Your task to perform on an android device: Open ESPN.com Image 0: 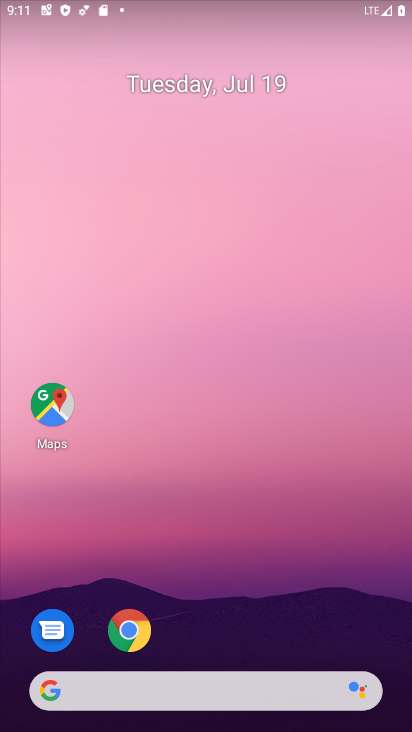
Step 0: drag from (216, 607) to (207, 83)
Your task to perform on an android device: Open ESPN.com Image 1: 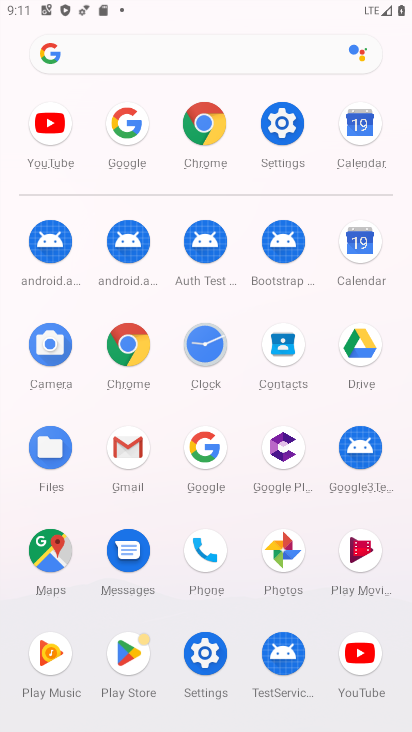
Step 1: click (205, 442)
Your task to perform on an android device: Open ESPN.com Image 2: 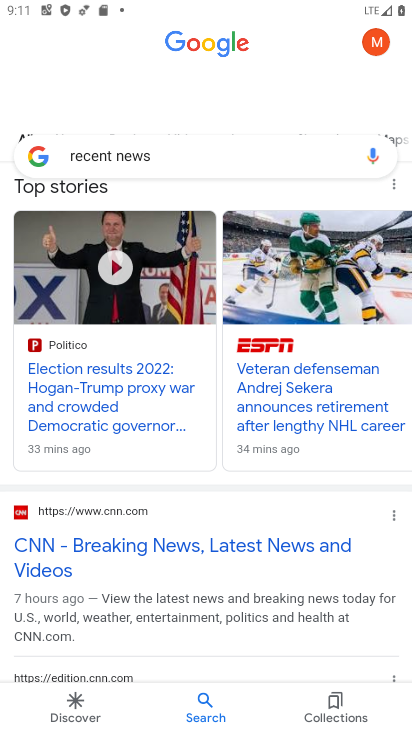
Step 2: click (232, 147)
Your task to perform on an android device: Open ESPN.com Image 3: 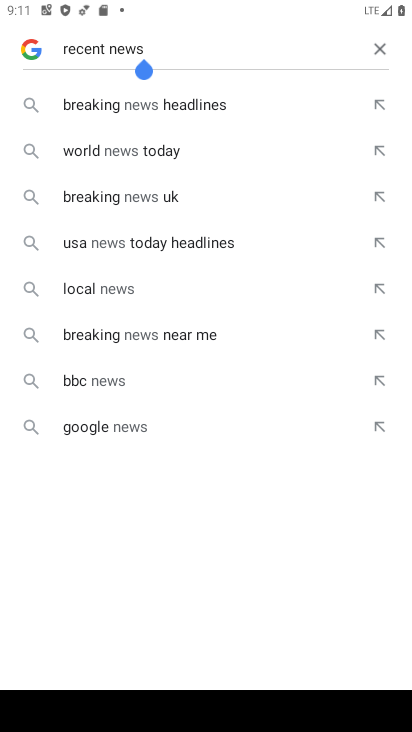
Step 3: click (378, 50)
Your task to perform on an android device: Open ESPN.com Image 4: 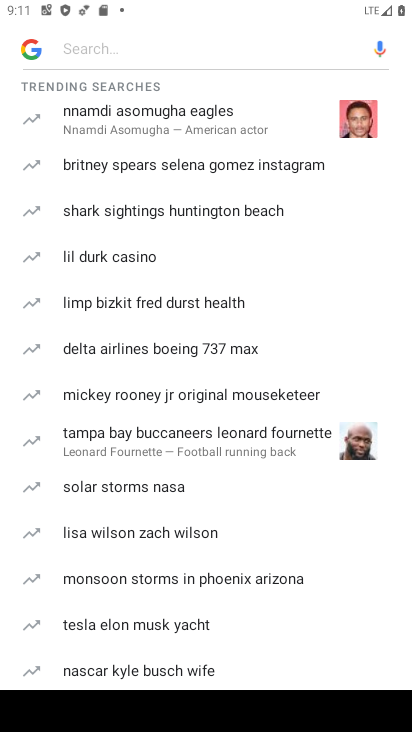
Step 4: type "espn.com"
Your task to perform on an android device: Open ESPN.com Image 5: 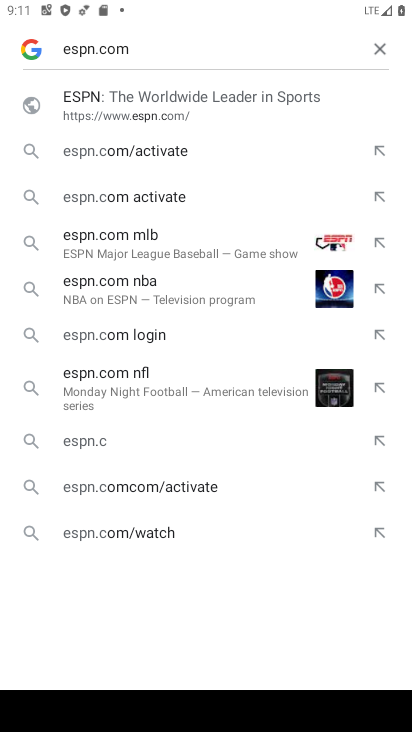
Step 5: click (122, 103)
Your task to perform on an android device: Open ESPN.com Image 6: 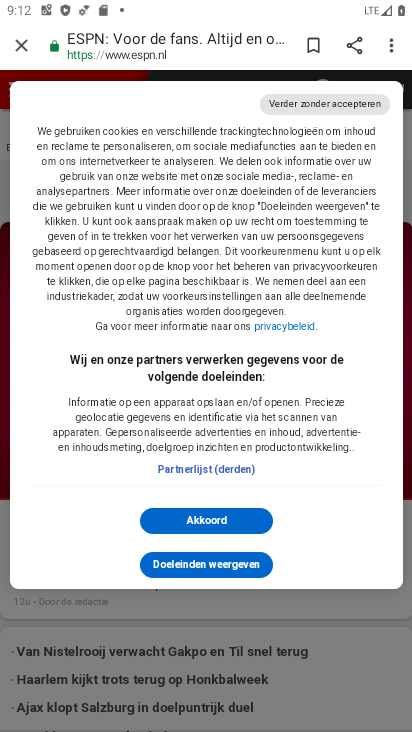
Step 6: task complete